Your task to perform on an android device: open a bookmark in the chrome app Image 0: 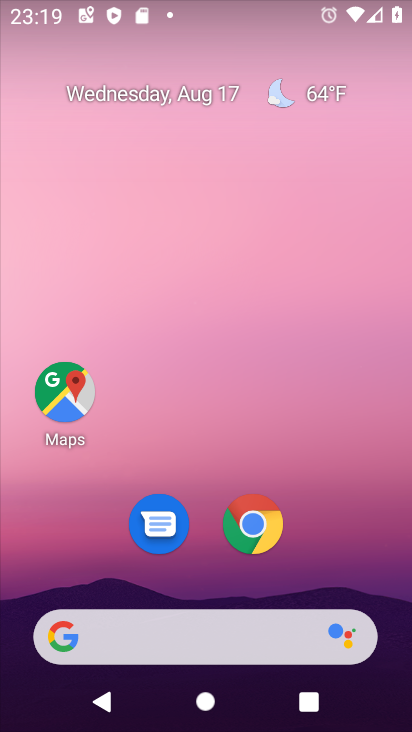
Step 0: click (253, 524)
Your task to perform on an android device: open a bookmark in the chrome app Image 1: 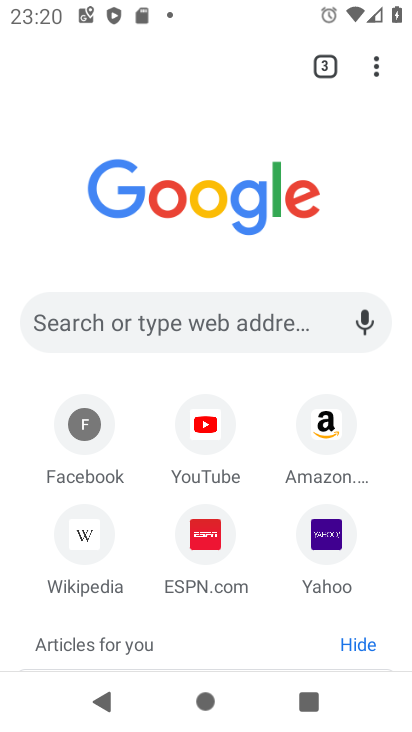
Step 1: click (376, 66)
Your task to perform on an android device: open a bookmark in the chrome app Image 2: 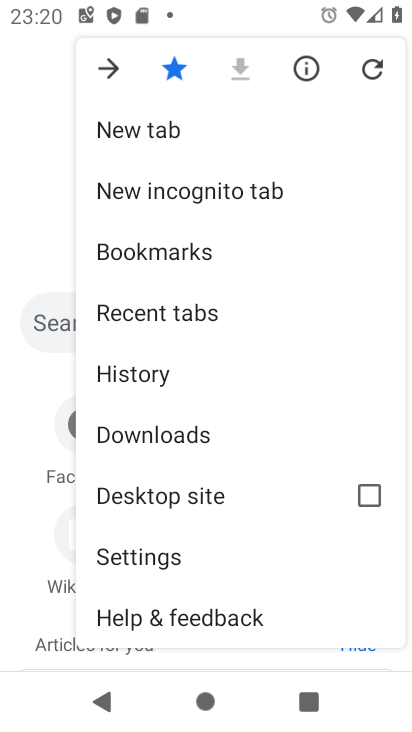
Step 2: click (220, 248)
Your task to perform on an android device: open a bookmark in the chrome app Image 3: 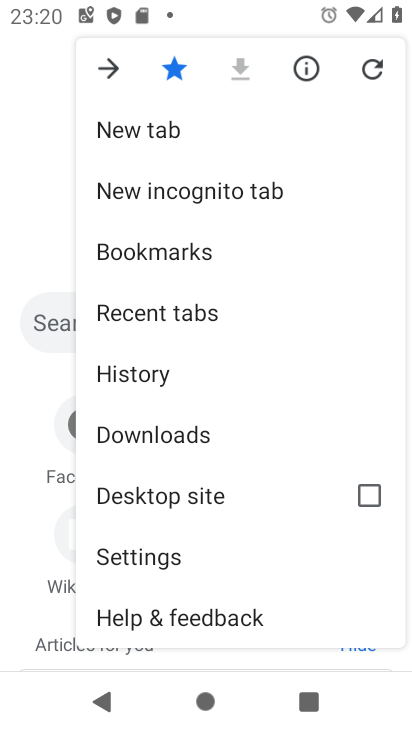
Step 3: click (220, 248)
Your task to perform on an android device: open a bookmark in the chrome app Image 4: 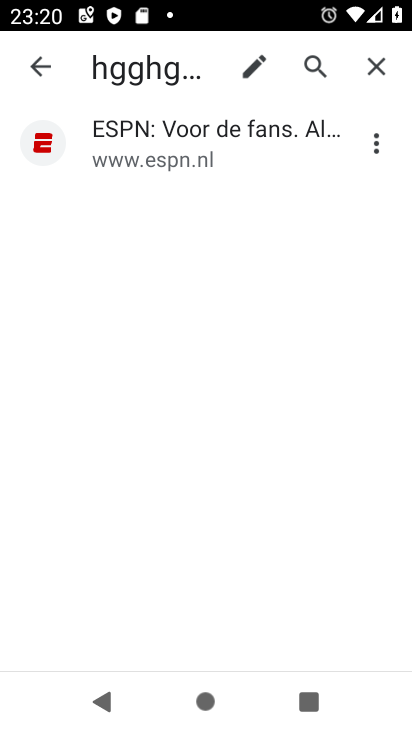
Step 4: click (230, 138)
Your task to perform on an android device: open a bookmark in the chrome app Image 5: 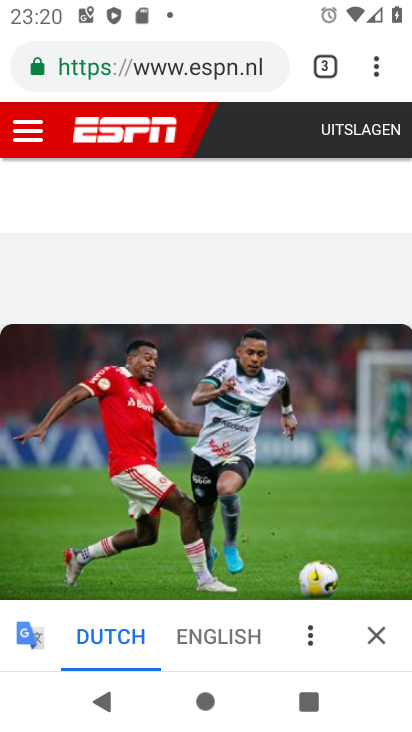
Step 5: click (232, 632)
Your task to perform on an android device: open a bookmark in the chrome app Image 6: 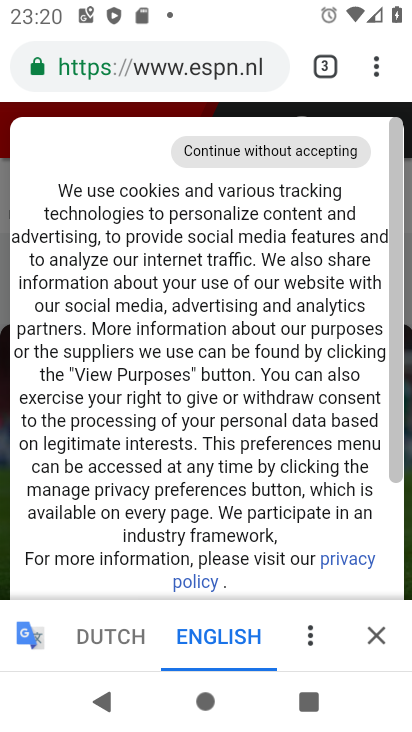
Step 6: click (323, 148)
Your task to perform on an android device: open a bookmark in the chrome app Image 7: 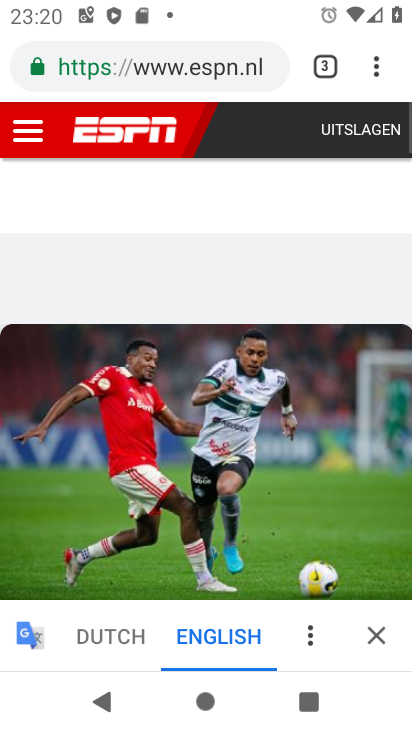
Step 7: click (379, 637)
Your task to perform on an android device: open a bookmark in the chrome app Image 8: 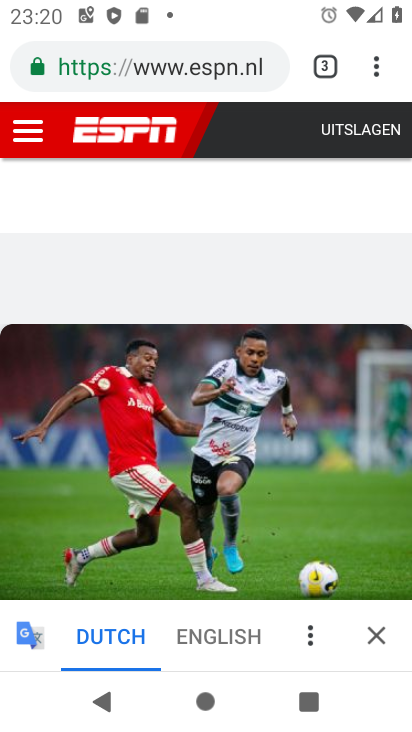
Step 8: drag from (278, 502) to (315, 89)
Your task to perform on an android device: open a bookmark in the chrome app Image 9: 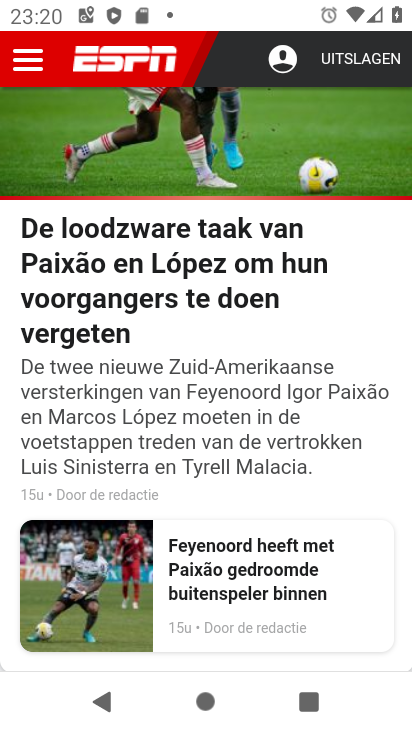
Step 9: drag from (257, 209) to (289, 620)
Your task to perform on an android device: open a bookmark in the chrome app Image 10: 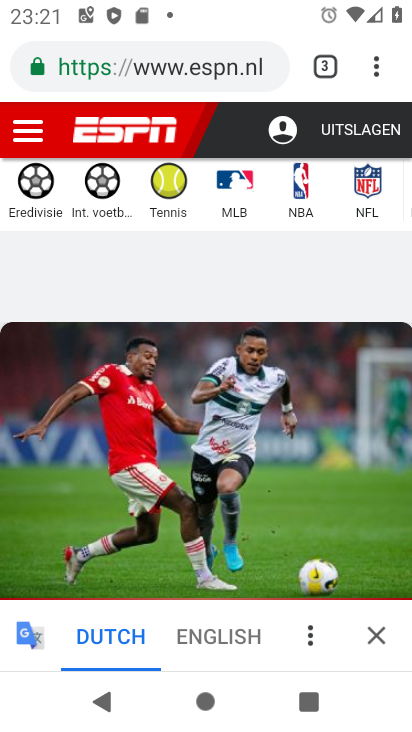
Step 10: click (242, 635)
Your task to perform on an android device: open a bookmark in the chrome app Image 11: 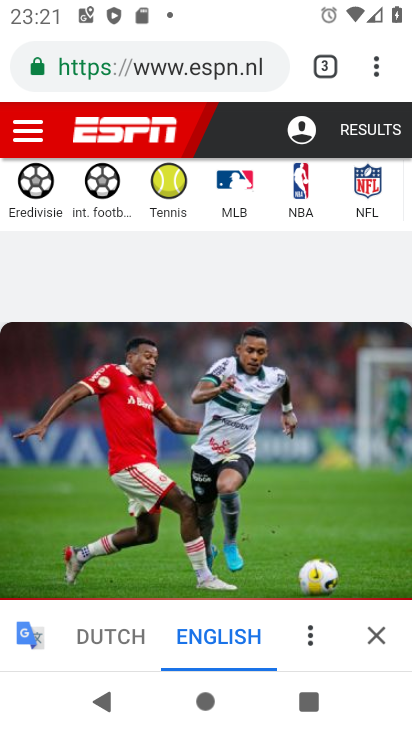
Step 11: drag from (255, 463) to (259, 132)
Your task to perform on an android device: open a bookmark in the chrome app Image 12: 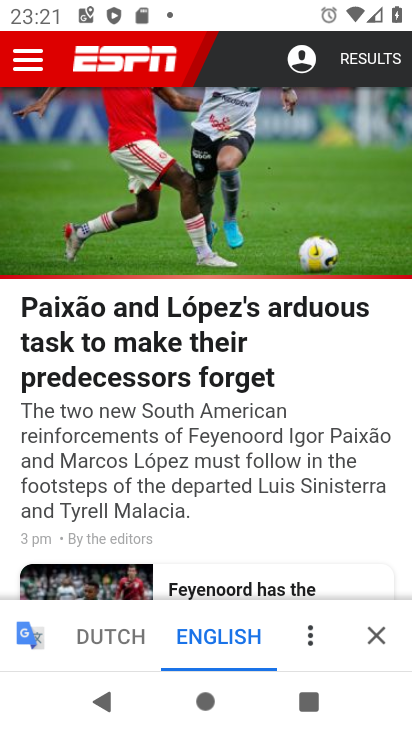
Step 12: click (248, 400)
Your task to perform on an android device: open a bookmark in the chrome app Image 13: 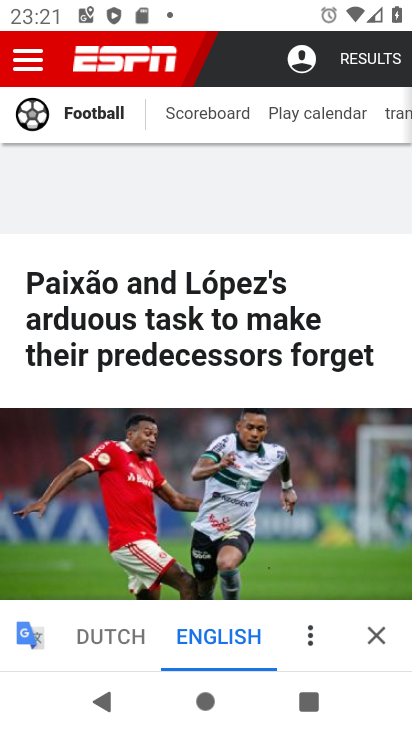
Step 13: task complete